Your task to perform on an android device: turn on showing notifications on the lock screen Image 0: 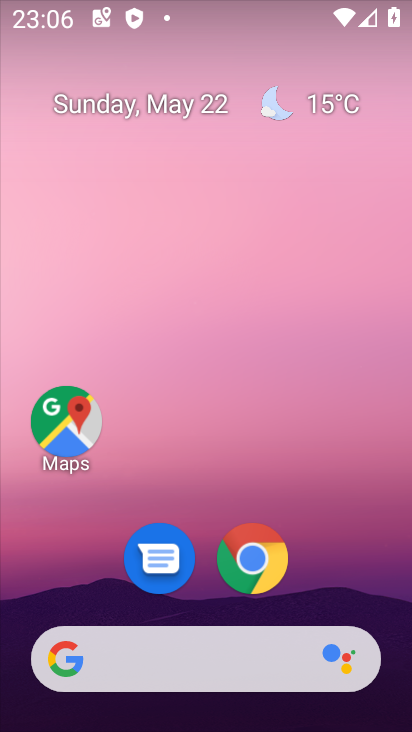
Step 0: drag from (338, 609) to (332, 5)
Your task to perform on an android device: turn on showing notifications on the lock screen Image 1: 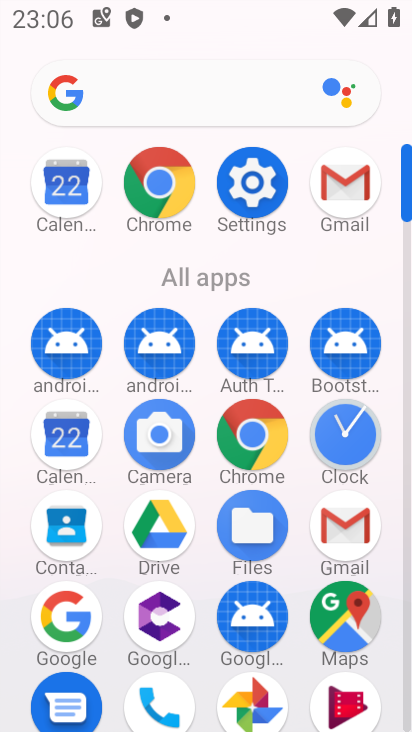
Step 1: click (248, 182)
Your task to perform on an android device: turn on showing notifications on the lock screen Image 2: 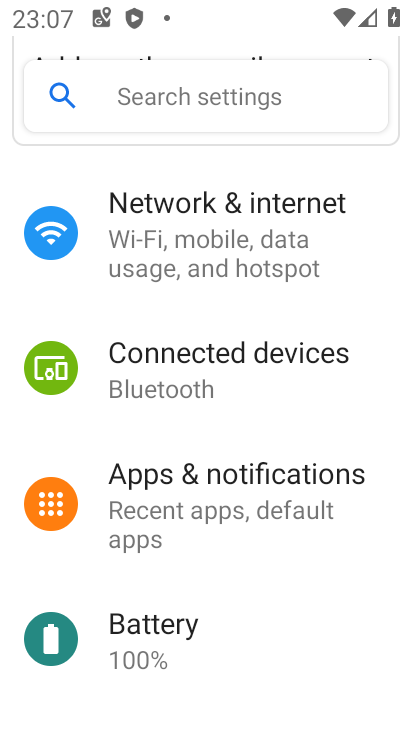
Step 2: click (216, 492)
Your task to perform on an android device: turn on showing notifications on the lock screen Image 3: 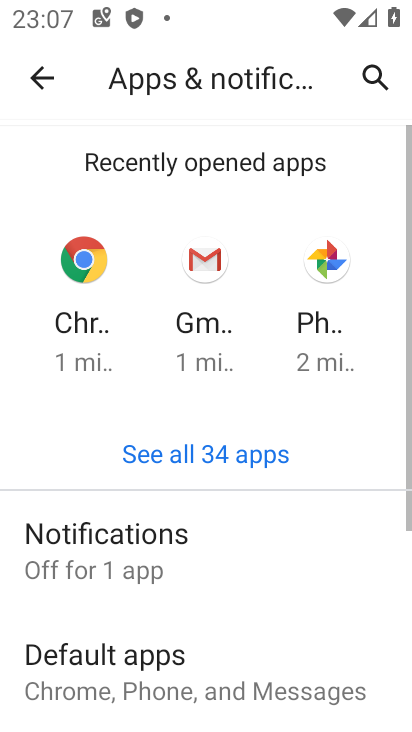
Step 3: drag from (210, 535) to (214, 201)
Your task to perform on an android device: turn on showing notifications on the lock screen Image 4: 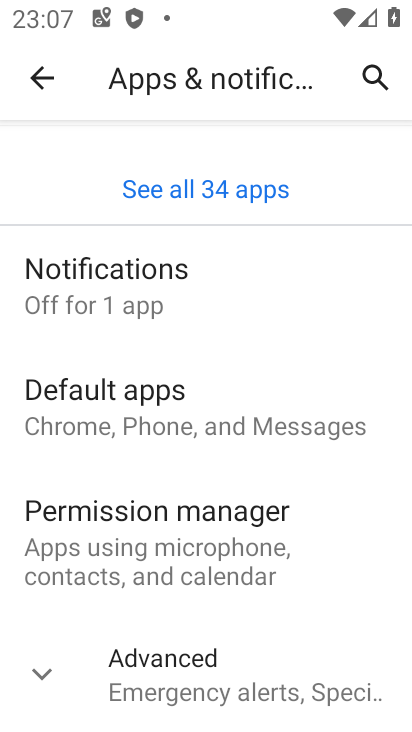
Step 4: click (106, 288)
Your task to perform on an android device: turn on showing notifications on the lock screen Image 5: 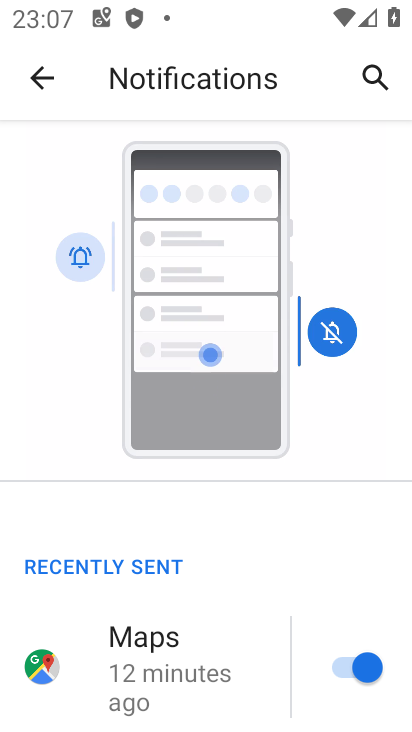
Step 5: drag from (148, 575) to (179, 76)
Your task to perform on an android device: turn on showing notifications on the lock screen Image 6: 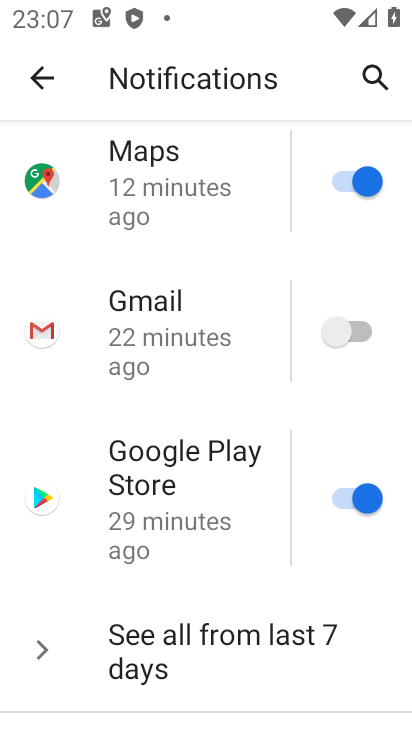
Step 6: drag from (134, 591) to (187, 117)
Your task to perform on an android device: turn on showing notifications on the lock screen Image 7: 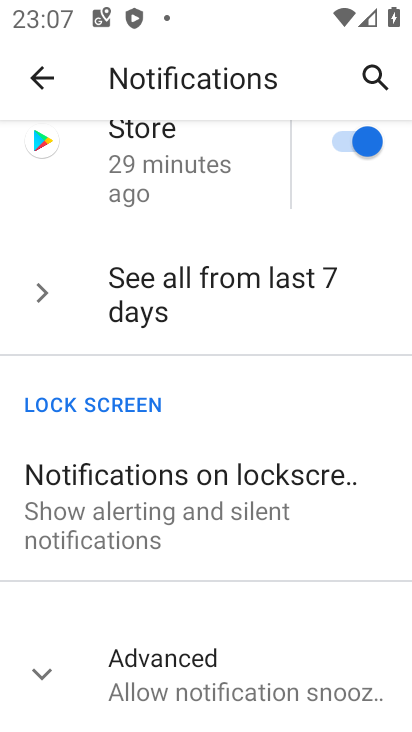
Step 7: click (125, 491)
Your task to perform on an android device: turn on showing notifications on the lock screen Image 8: 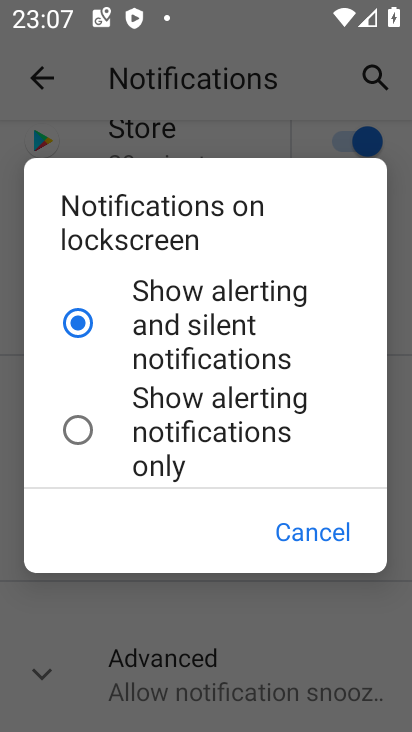
Step 8: task complete